Your task to perform on an android device: Open Google Maps Image 0: 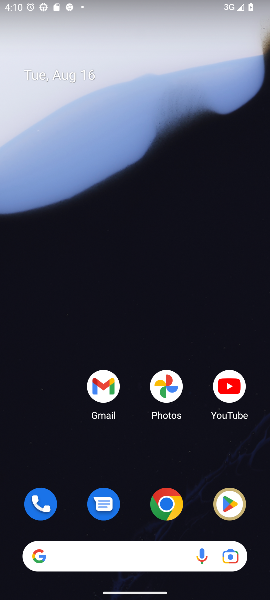
Step 0: drag from (130, 477) to (84, 135)
Your task to perform on an android device: Open Google Maps Image 1: 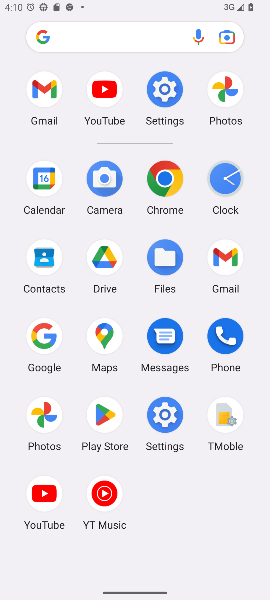
Step 1: click (103, 331)
Your task to perform on an android device: Open Google Maps Image 2: 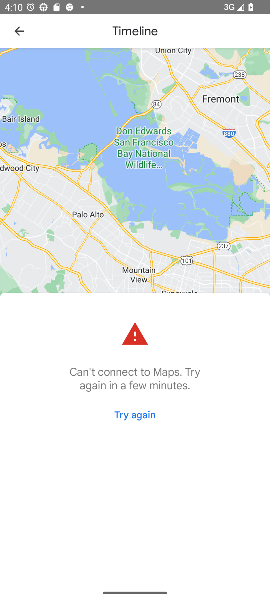
Step 2: click (142, 413)
Your task to perform on an android device: Open Google Maps Image 3: 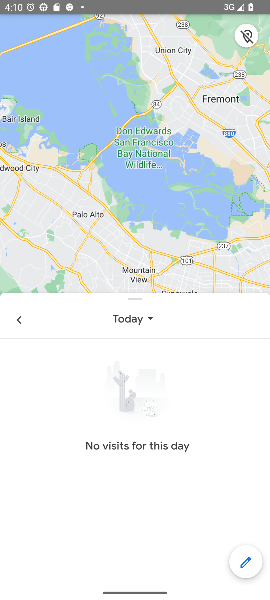
Step 3: click (115, 76)
Your task to perform on an android device: Open Google Maps Image 4: 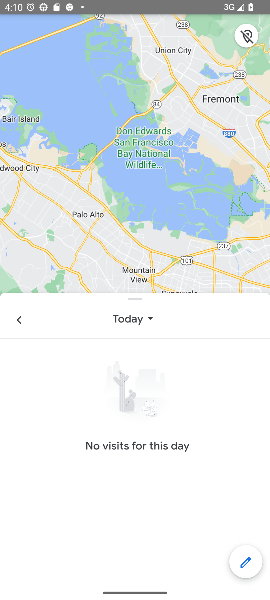
Step 4: click (21, 322)
Your task to perform on an android device: Open Google Maps Image 5: 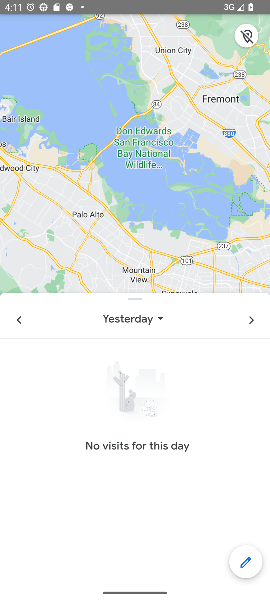
Step 5: task complete